Your task to perform on an android device: Open Android settings Image 0: 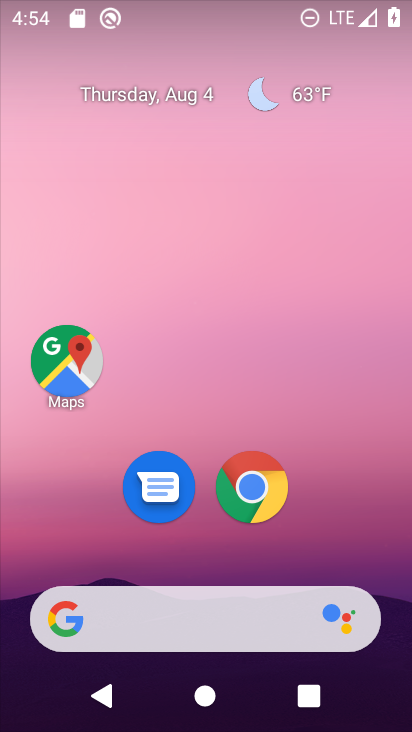
Step 0: drag from (198, 463) to (264, 2)
Your task to perform on an android device: Open Android settings Image 1: 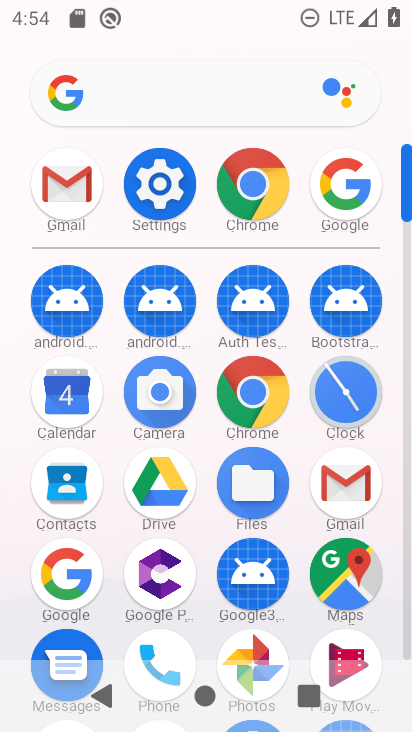
Step 1: click (171, 170)
Your task to perform on an android device: Open Android settings Image 2: 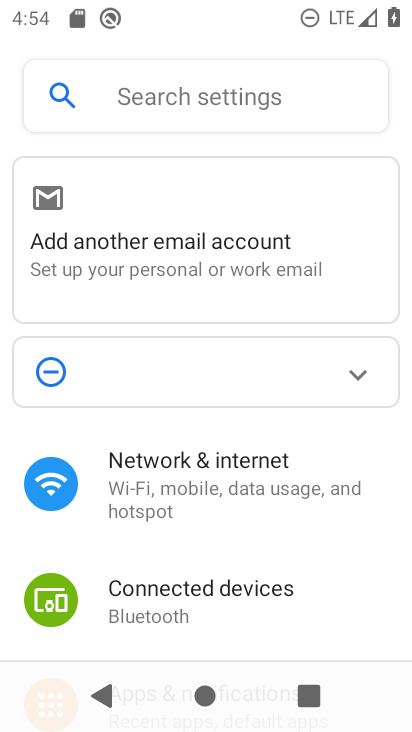
Step 2: drag from (202, 634) to (284, 68)
Your task to perform on an android device: Open Android settings Image 3: 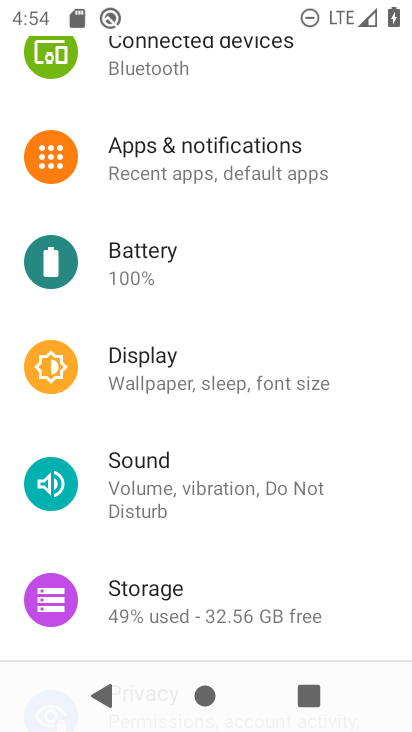
Step 3: drag from (183, 597) to (341, 131)
Your task to perform on an android device: Open Android settings Image 4: 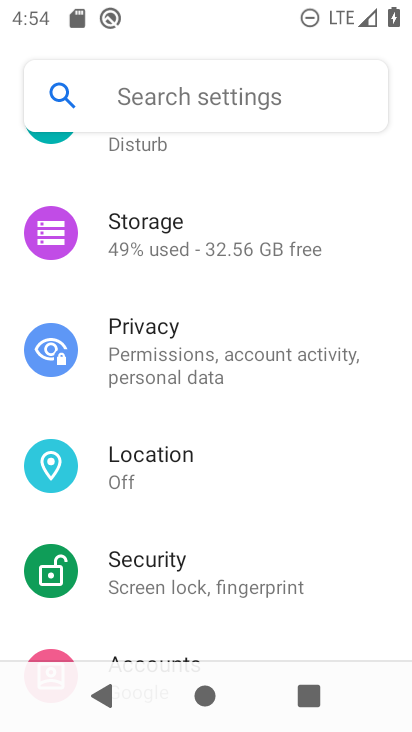
Step 4: drag from (164, 635) to (292, 27)
Your task to perform on an android device: Open Android settings Image 5: 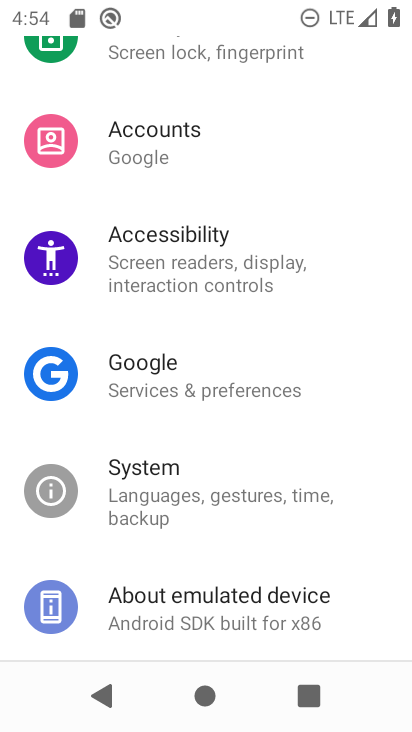
Step 5: click (173, 605)
Your task to perform on an android device: Open Android settings Image 6: 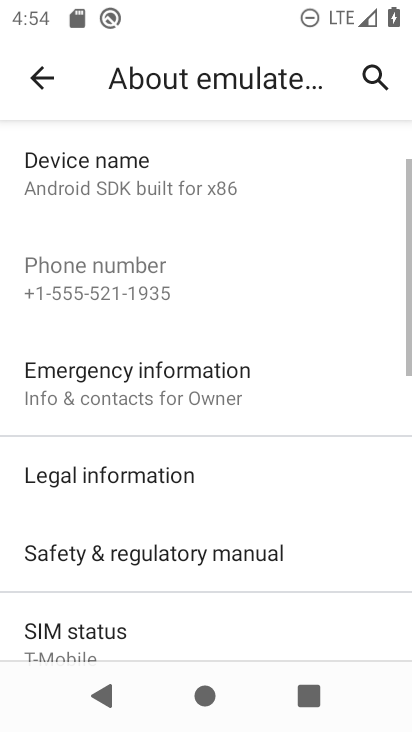
Step 6: task complete